Your task to perform on an android device: Show the shopping cart on bestbuy. Image 0: 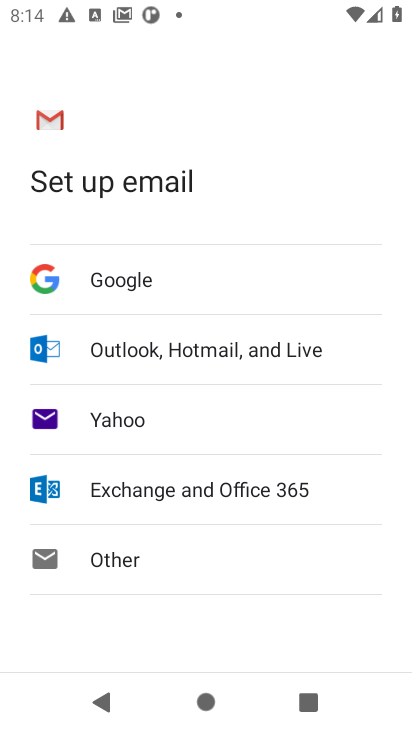
Step 0: press home button
Your task to perform on an android device: Show the shopping cart on bestbuy. Image 1: 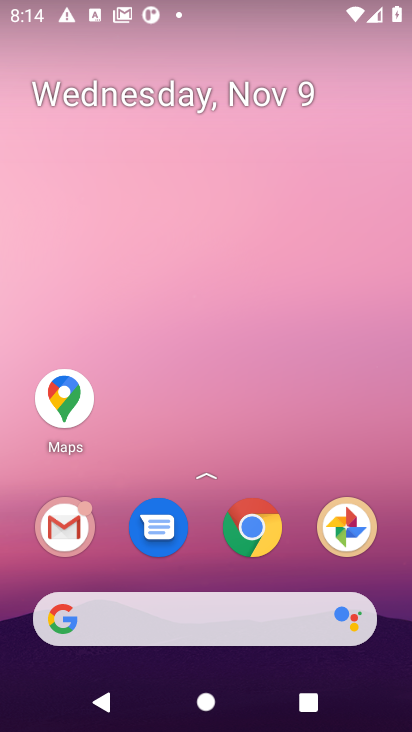
Step 1: click (260, 534)
Your task to perform on an android device: Show the shopping cart on bestbuy. Image 2: 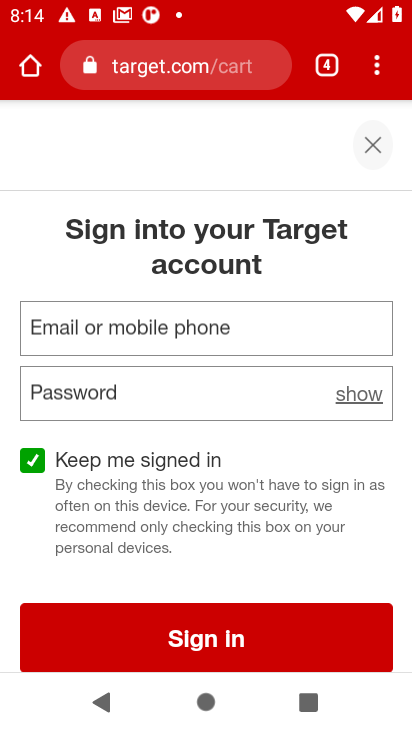
Step 2: click (186, 62)
Your task to perform on an android device: Show the shopping cart on bestbuy. Image 3: 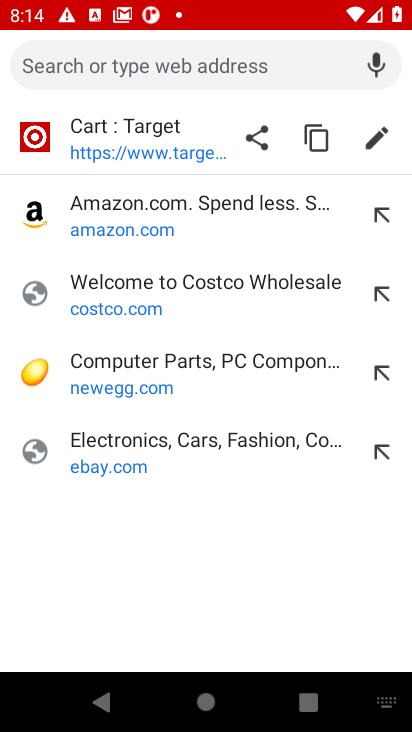
Step 3: type "bestbuy.com"
Your task to perform on an android device: Show the shopping cart on bestbuy. Image 4: 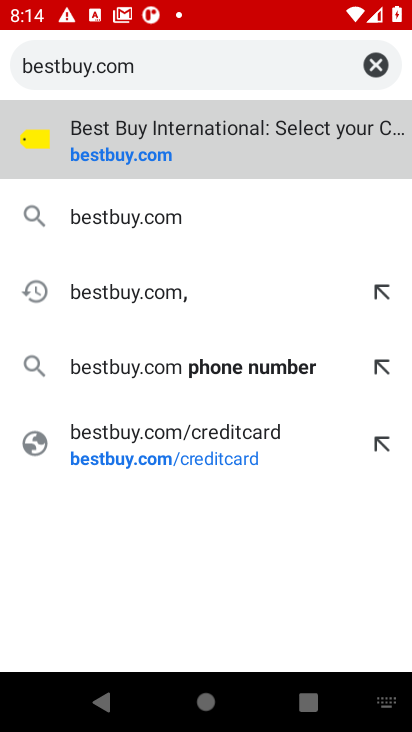
Step 4: click (167, 164)
Your task to perform on an android device: Show the shopping cart on bestbuy. Image 5: 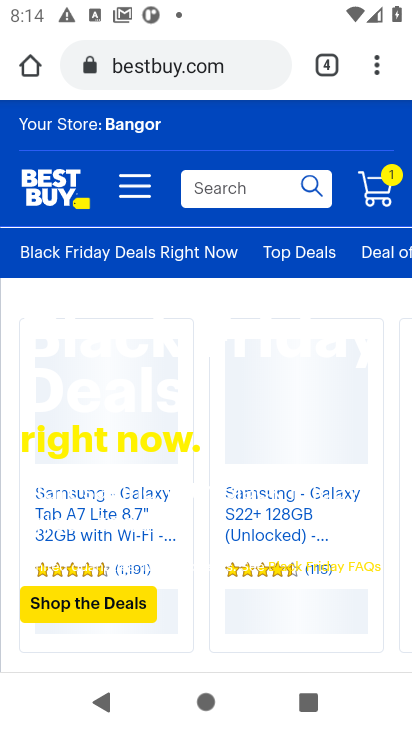
Step 5: click (369, 193)
Your task to perform on an android device: Show the shopping cart on bestbuy. Image 6: 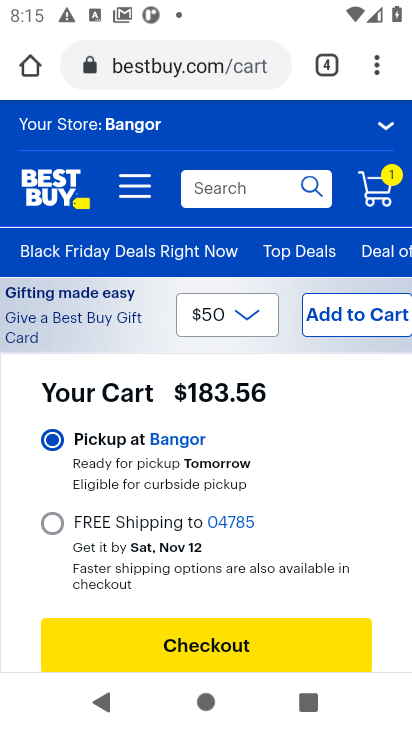
Step 6: task complete